Your task to perform on an android device: delete browsing data in the chrome app Image 0: 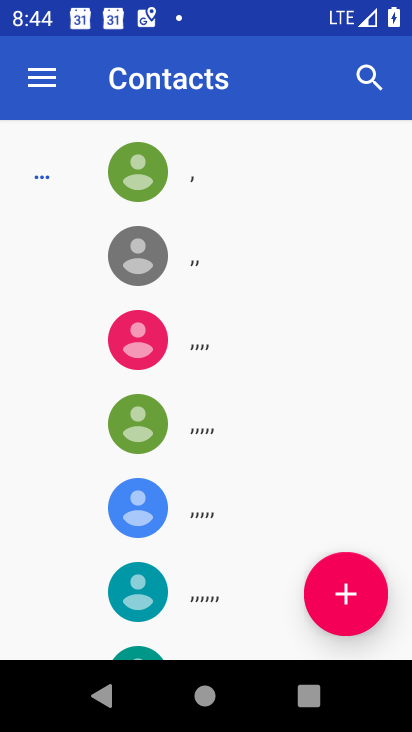
Step 0: press home button
Your task to perform on an android device: delete browsing data in the chrome app Image 1: 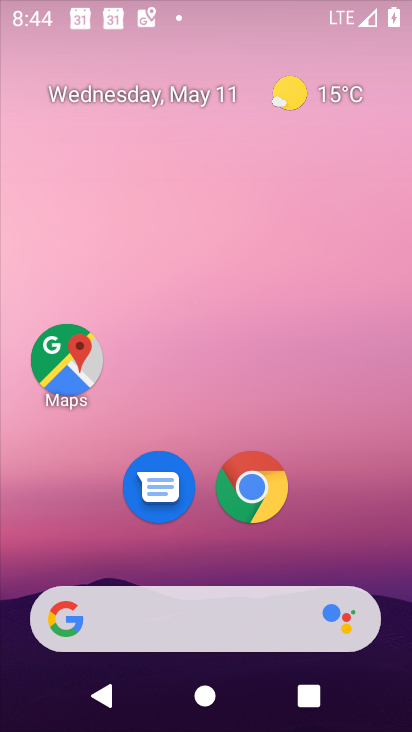
Step 1: drag from (260, 610) to (203, 204)
Your task to perform on an android device: delete browsing data in the chrome app Image 2: 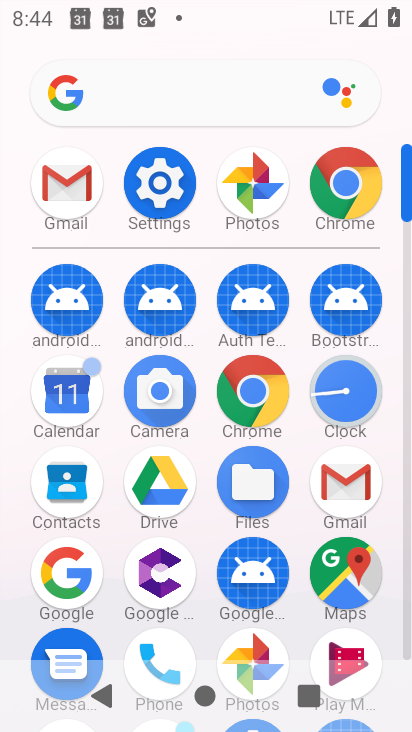
Step 2: click (335, 195)
Your task to perform on an android device: delete browsing data in the chrome app Image 3: 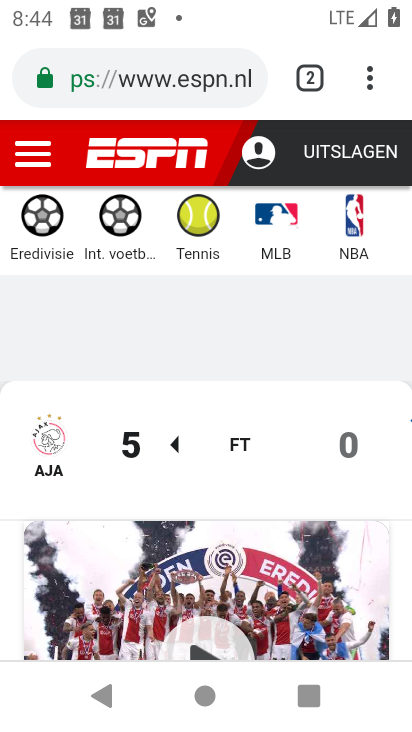
Step 3: click (371, 85)
Your task to perform on an android device: delete browsing data in the chrome app Image 4: 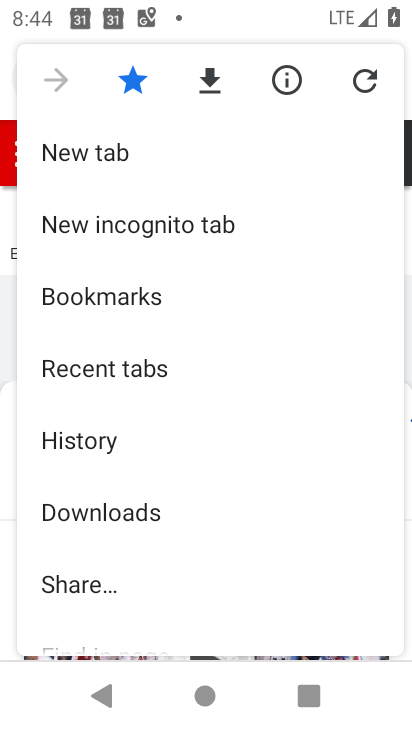
Step 4: click (92, 438)
Your task to perform on an android device: delete browsing data in the chrome app Image 5: 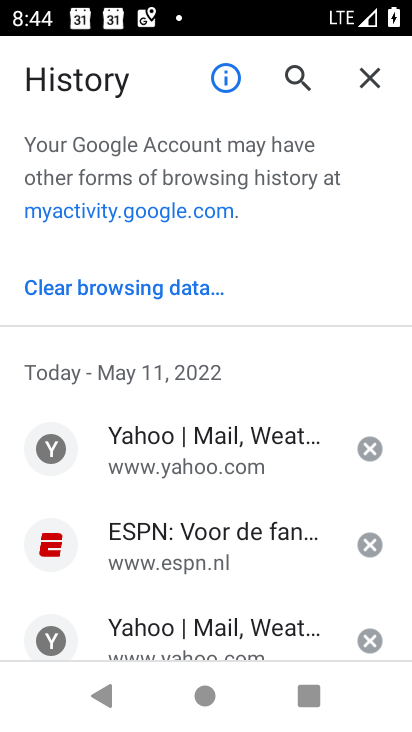
Step 5: click (126, 279)
Your task to perform on an android device: delete browsing data in the chrome app Image 6: 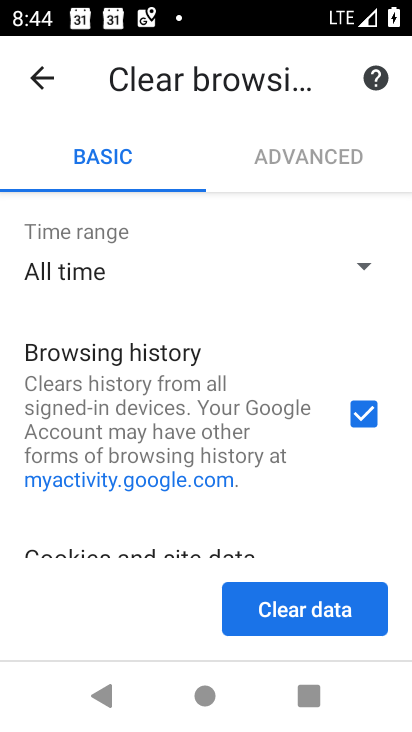
Step 6: click (330, 590)
Your task to perform on an android device: delete browsing data in the chrome app Image 7: 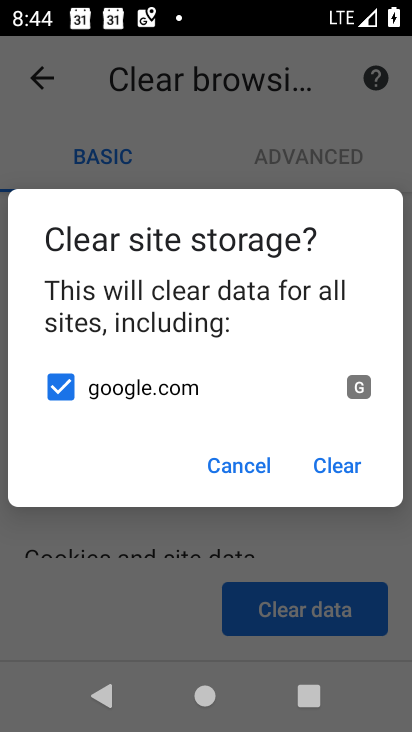
Step 7: task complete